Your task to perform on an android device: Open location settings Image 0: 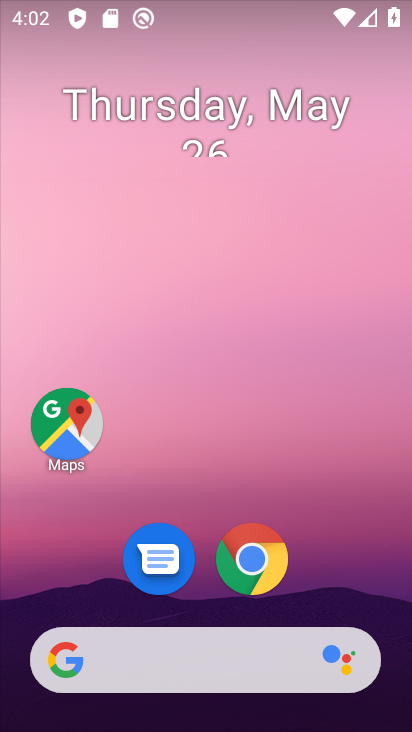
Step 0: drag from (363, 555) to (285, 40)
Your task to perform on an android device: Open location settings Image 1: 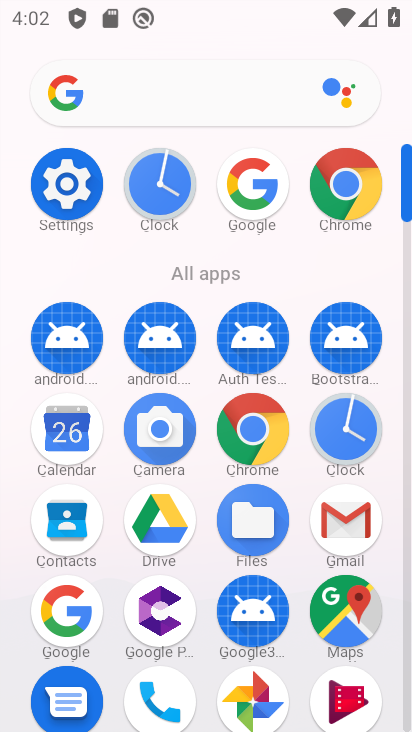
Step 1: click (52, 177)
Your task to perform on an android device: Open location settings Image 2: 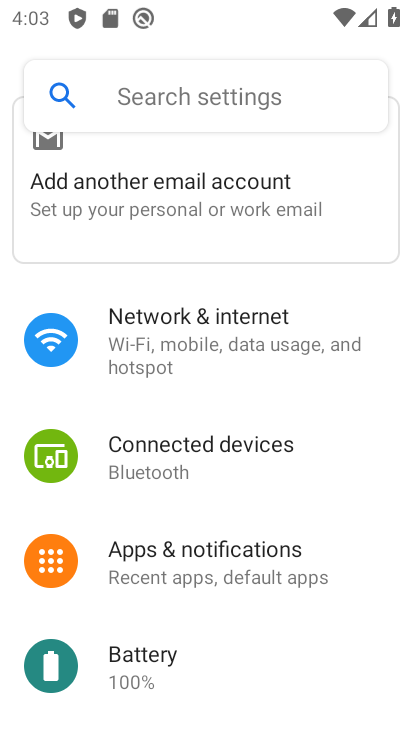
Step 2: drag from (280, 579) to (281, 17)
Your task to perform on an android device: Open location settings Image 3: 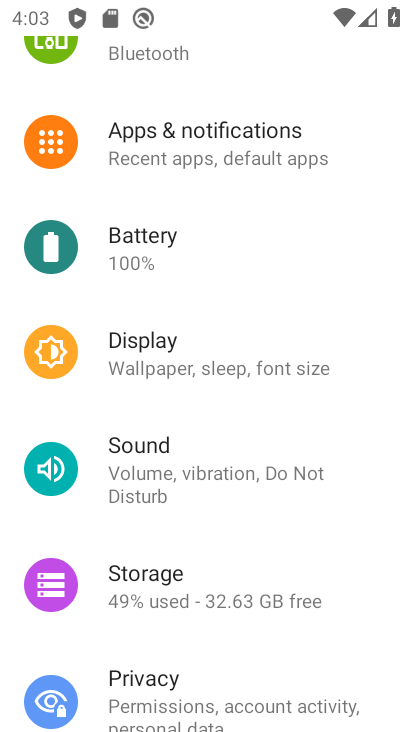
Step 3: drag from (268, 619) to (251, 137)
Your task to perform on an android device: Open location settings Image 4: 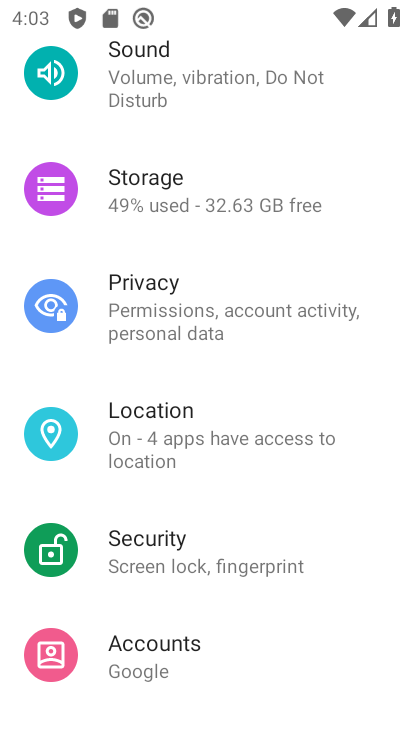
Step 4: click (204, 423)
Your task to perform on an android device: Open location settings Image 5: 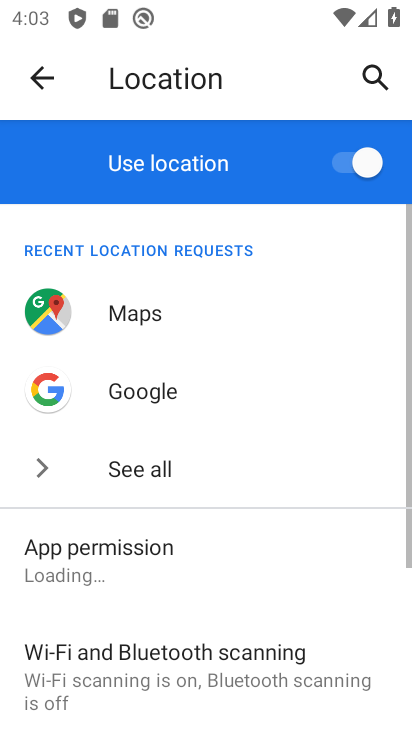
Step 5: task complete